Your task to perform on an android device: toggle sleep mode Image 0: 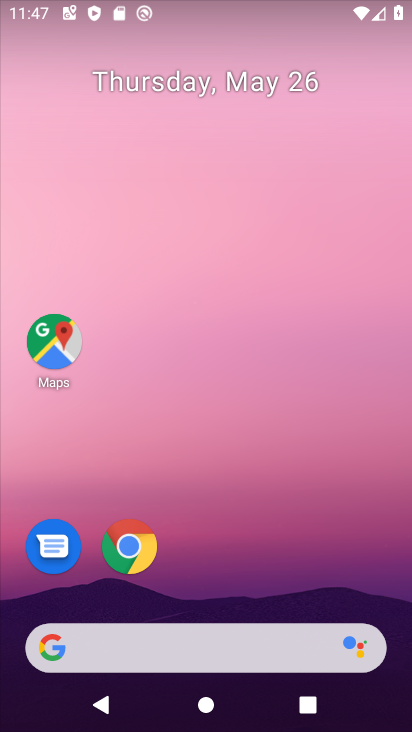
Step 0: drag from (229, 539) to (159, 46)
Your task to perform on an android device: toggle sleep mode Image 1: 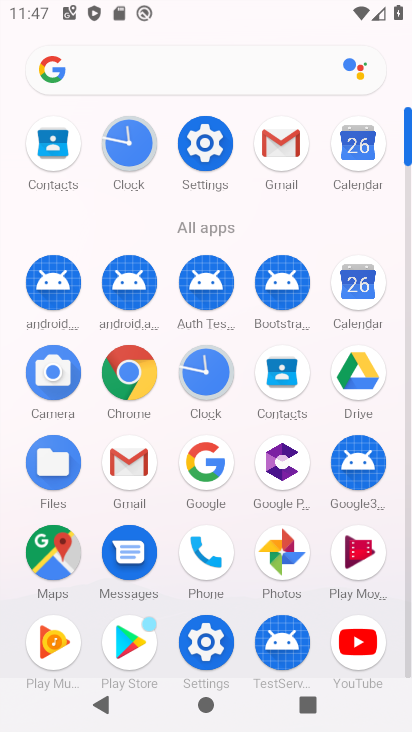
Step 1: click (195, 150)
Your task to perform on an android device: toggle sleep mode Image 2: 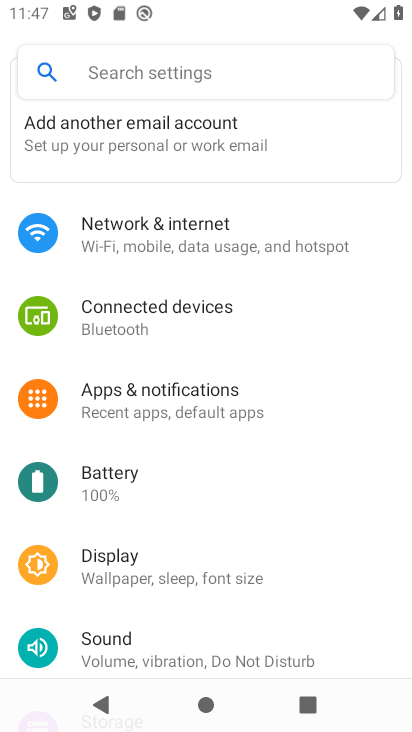
Step 2: click (130, 575)
Your task to perform on an android device: toggle sleep mode Image 3: 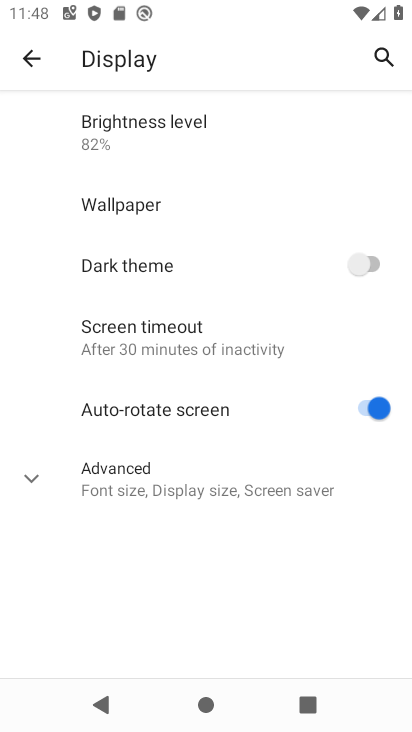
Step 3: task complete